Your task to perform on an android device: Open internet settings Image 0: 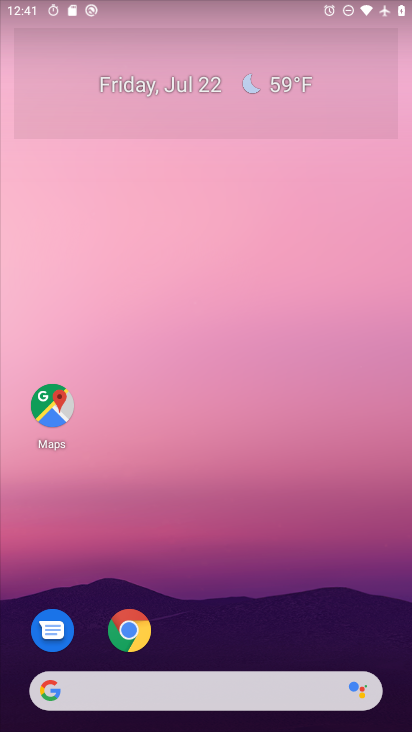
Step 0: press home button
Your task to perform on an android device: Open internet settings Image 1: 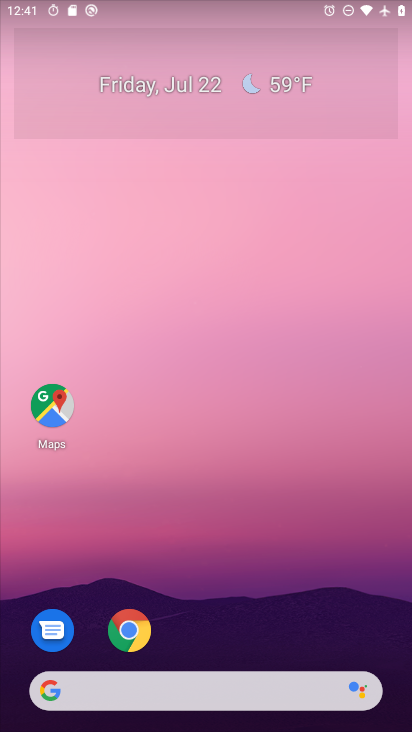
Step 1: drag from (222, 634) to (258, 71)
Your task to perform on an android device: Open internet settings Image 2: 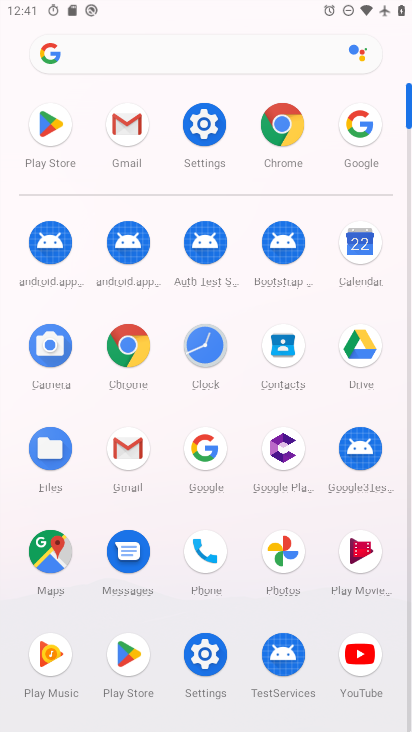
Step 2: click (197, 136)
Your task to perform on an android device: Open internet settings Image 3: 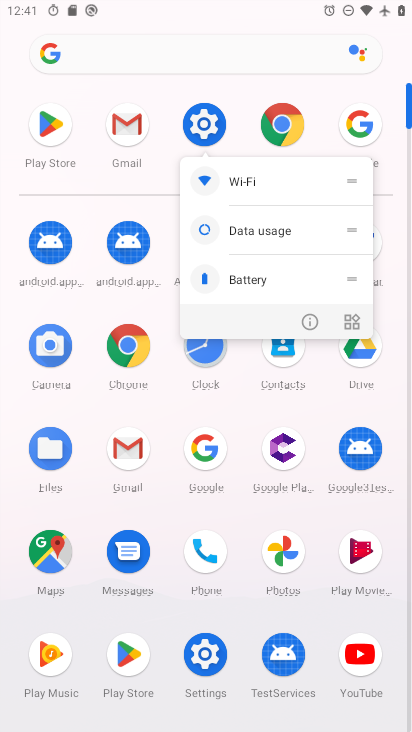
Step 3: click (197, 136)
Your task to perform on an android device: Open internet settings Image 4: 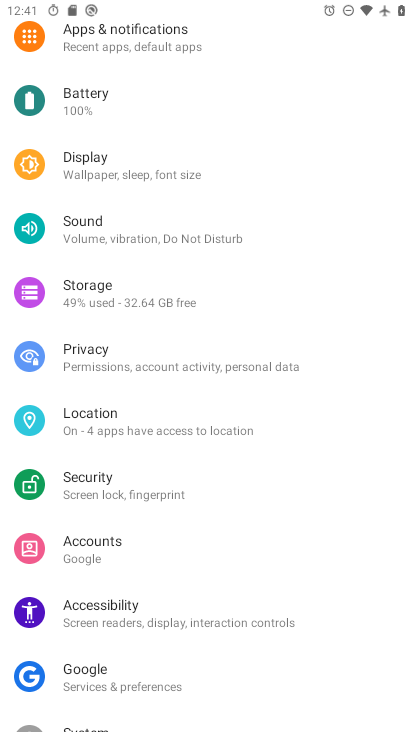
Step 4: drag from (230, 80) to (187, 347)
Your task to perform on an android device: Open internet settings Image 5: 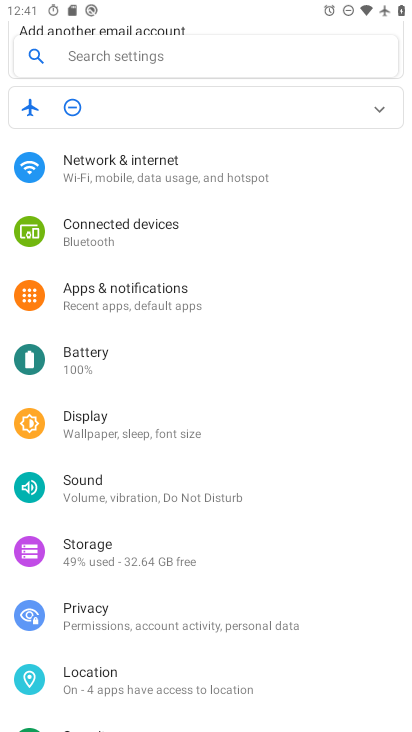
Step 5: click (114, 166)
Your task to perform on an android device: Open internet settings Image 6: 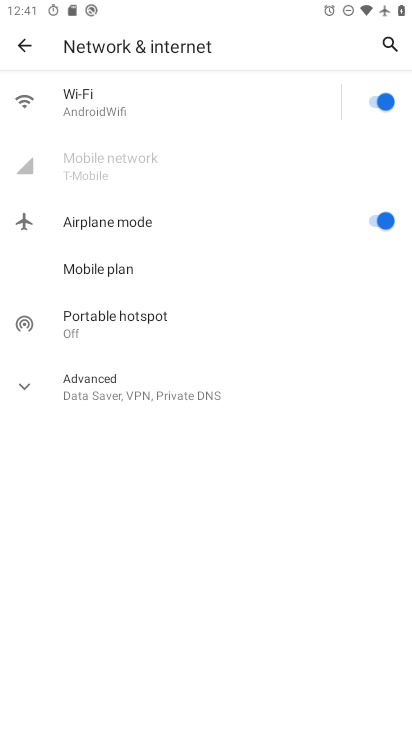
Step 6: task complete